Your task to perform on an android device: Open notification settings Image 0: 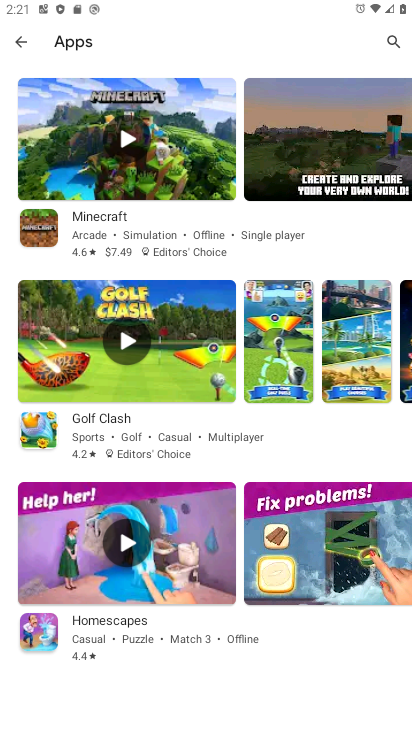
Step 0: press home button
Your task to perform on an android device: Open notification settings Image 1: 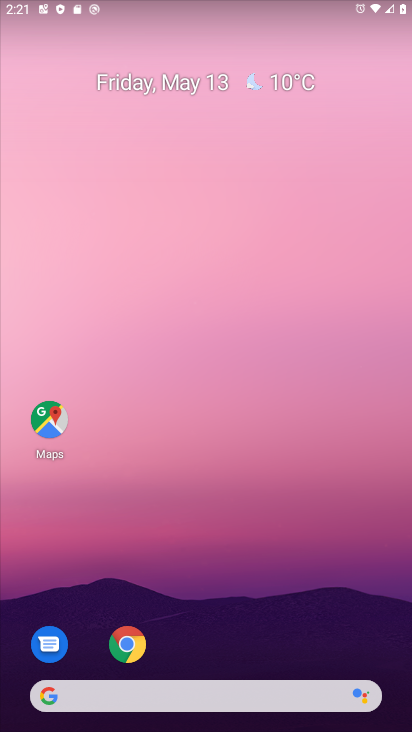
Step 1: drag from (212, 727) to (228, 167)
Your task to perform on an android device: Open notification settings Image 2: 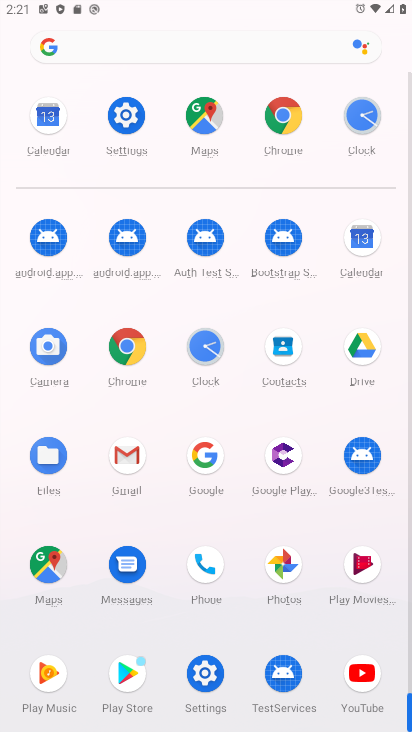
Step 2: click (122, 111)
Your task to perform on an android device: Open notification settings Image 3: 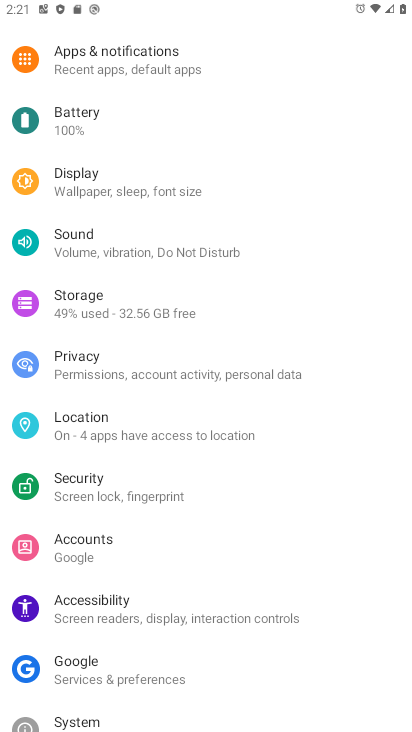
Step 3: click (103, 64)
Your task to perform on an android device: Open notification settings Image 4: 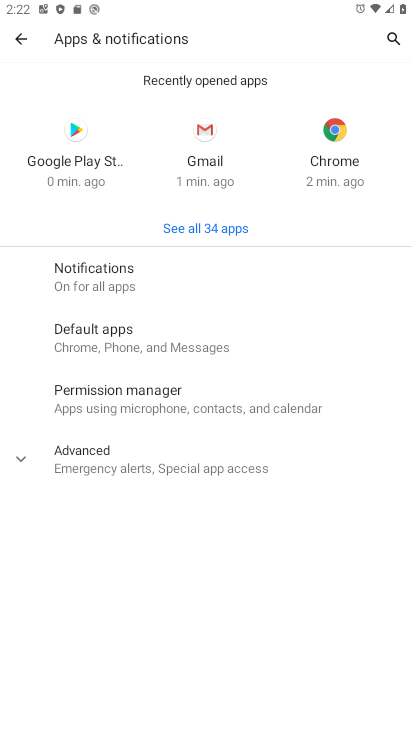
Step 4: task complete